Your task to perform on an android device: delete the emails in spam in the gmail app Image 0: 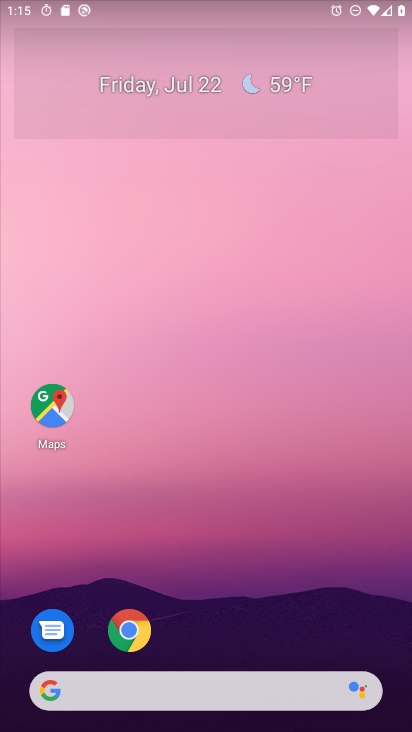
Step 0: press home button
Your task to perform on an android device: delete the emails in spam in the gmail app Image 1: 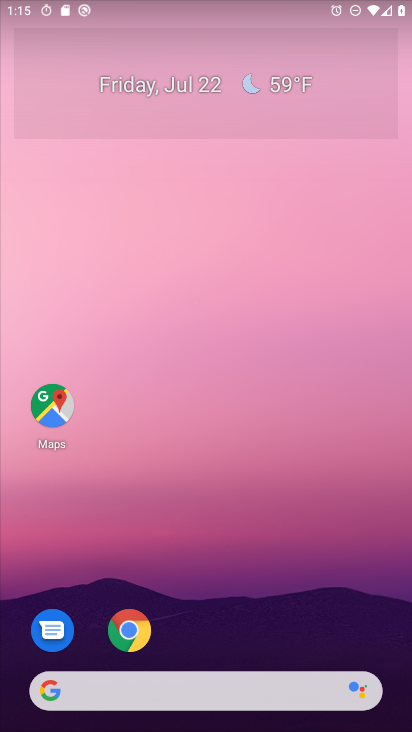
Step 1: drag from (257, 639) to (256, 93)
Your task to perform on an android device: delete the emails in spam in the gmail app Image 2: 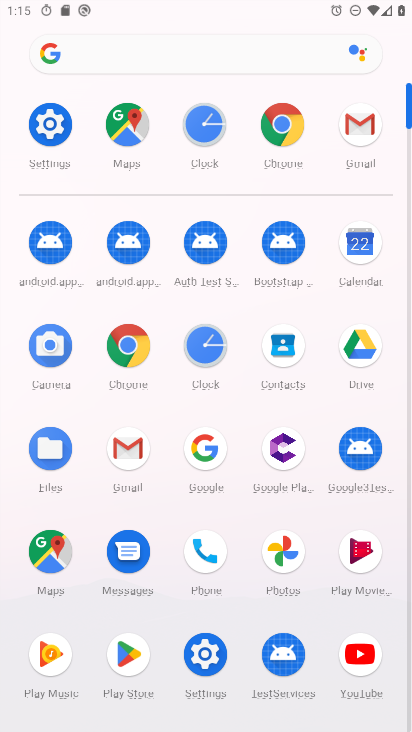
Step 2: click (366, 117)
Your task to perform on an android device: delete the emails in spam in the gmail app Image 3: 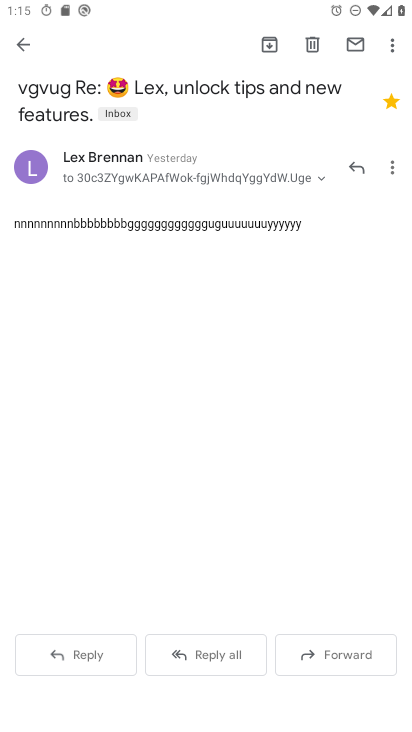
Step 3: click (26, 43)
Your task to perform on an android device: delete the emails in spam in the gmail app Image 4: 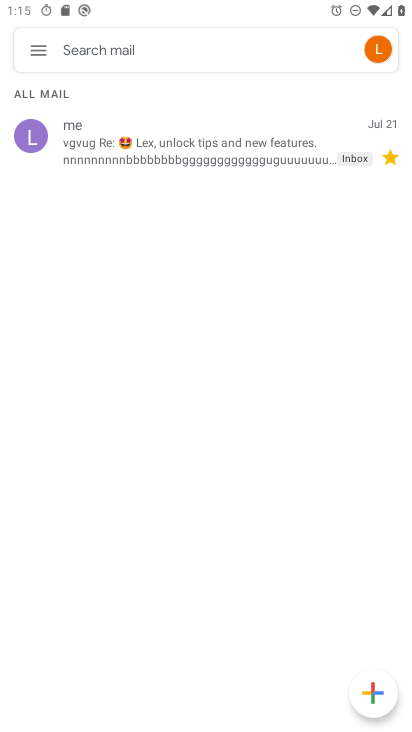
Step 4: click (33, 48)
Your task to perform on an android device: delete the emails in spam in the gmail app Image 5: 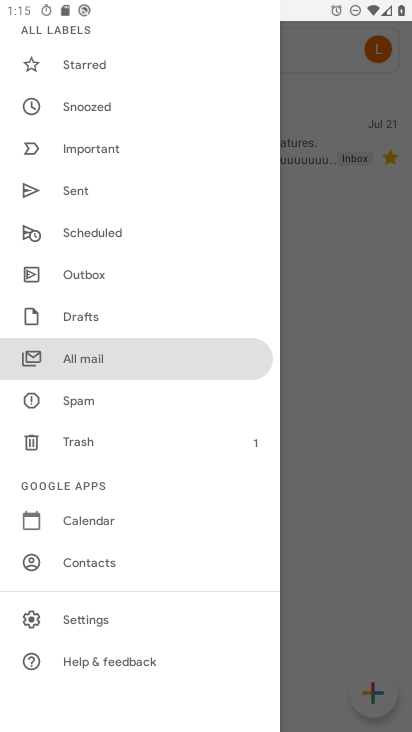
Step 5: click (83, 404)
Your task to perform on an android device: delete the emails in spam in the gmail app Image 6: 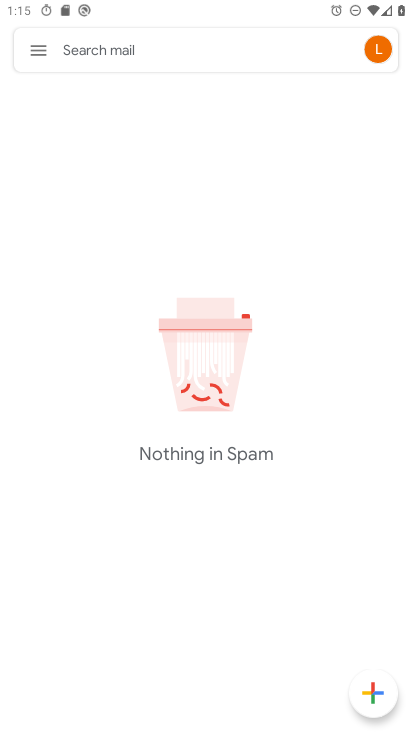
Step 6: task complete